Your task to perform on an android device: move a message to another label in the gmail app Image 0: 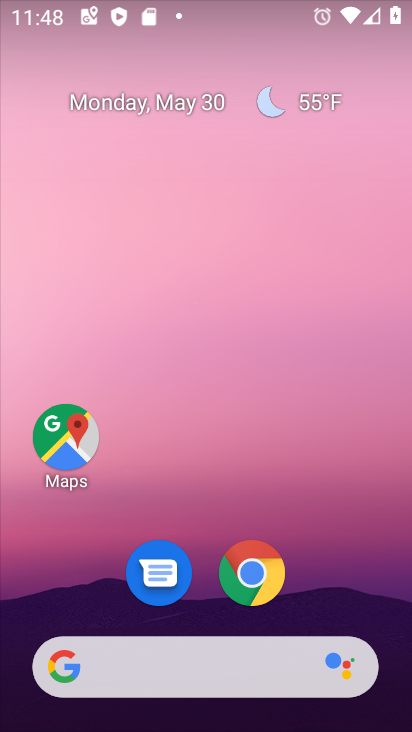
Step 0: drag from (148, 728) to (268, 80)
Your task to perform on an android device: move a message to another label in the gmail app Image 1: 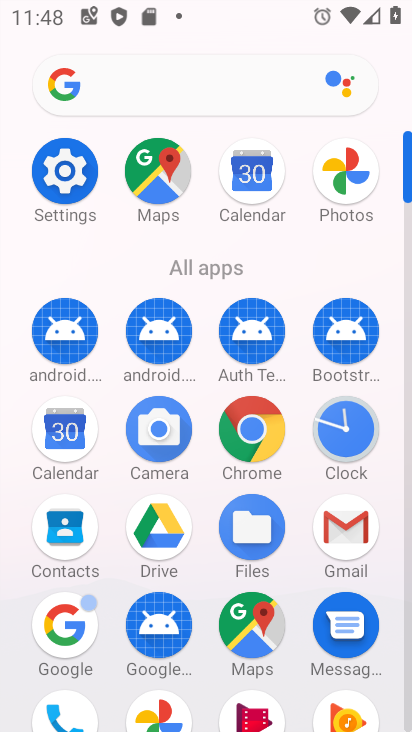
Step 1: click (348, 536)
Your task to perform on an android device: move a message to another label in the gmail app Image 2: 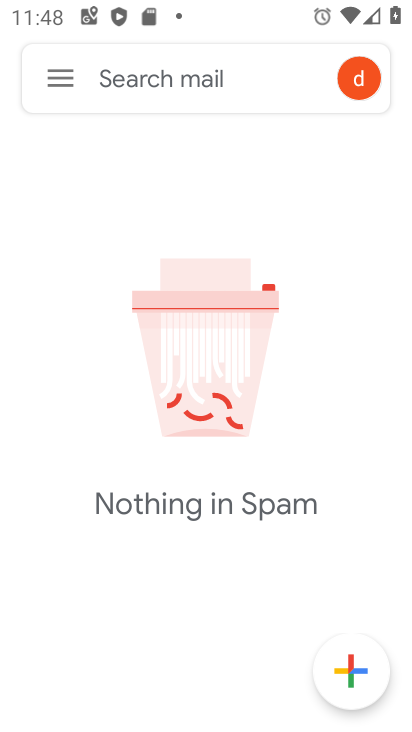
Step 2: click (62, 87)
Your task to perform on an android device: move a message to another label in the gmail app Image 3: 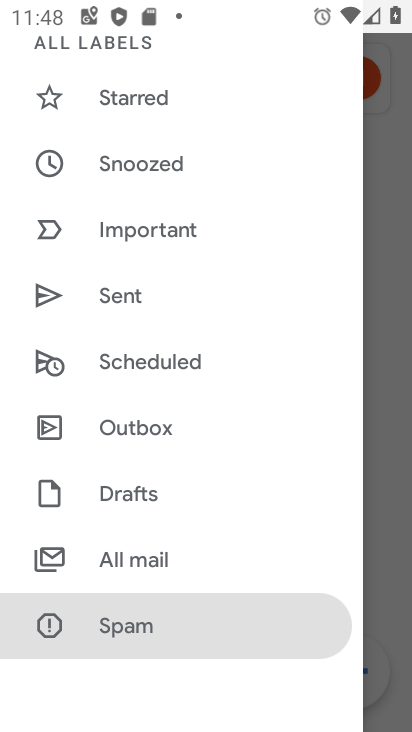
Step 3: click (171, 555)
Your task to perform on an android device: move a message to another label in the gmail app Image 4: 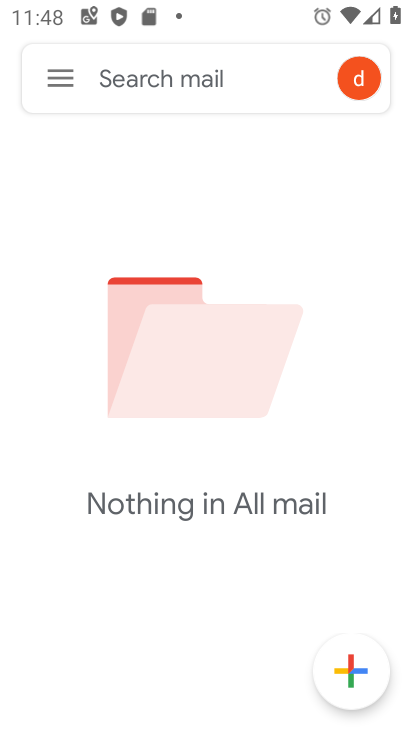
Step 4: click (62, 89)
Your task to perform on an android device: move a message to another label in the gmail app Image 5: 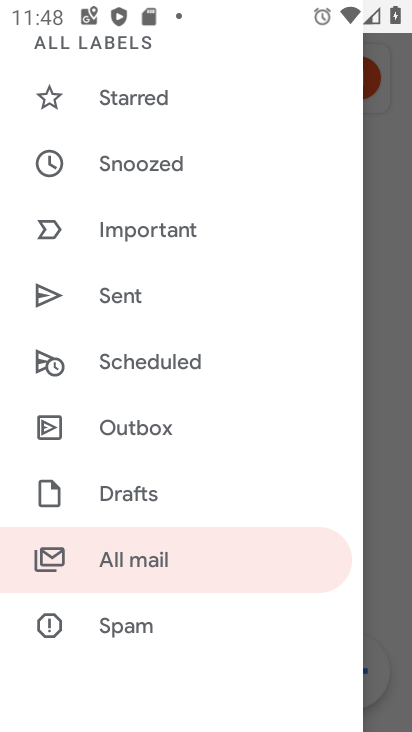
Step 5: drag from (277, 140) to (245, 686)
Your task to perform on an android device: move a message to another label in the gmail app Image 6: 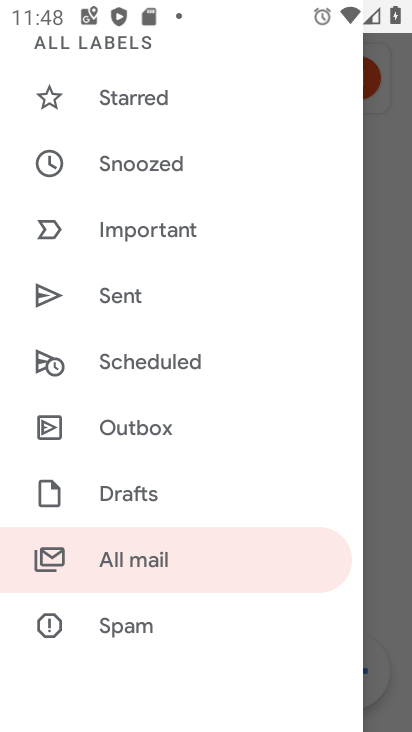
Step 6: drag from (223, 115) to (165, 590)
Your task to perform on an android device: move a message to another label in the gmail app Image 7: 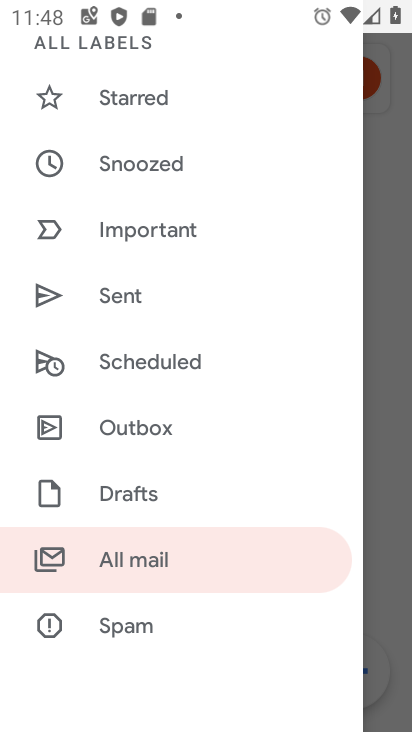
Step 7: drag from (234, 145) to (188, 669)
Your task to perform on an android device: move a message to another label in the gmail app Image 8: 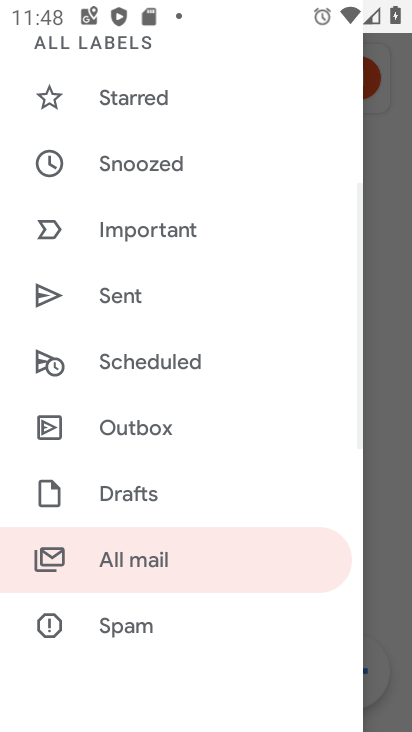
Step 8: drag from (208, 110) to (177, 621)
Your task to perform on an android device: move a message to another label in the gmail app Image 9: 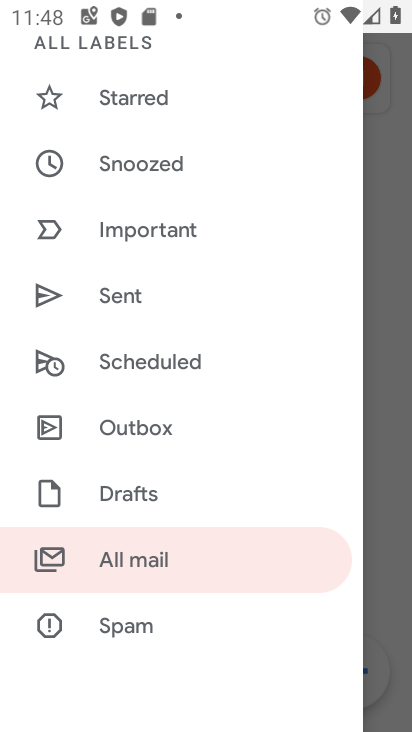
Step 9: drag from (228, 108) to (226, 599)
Your task to perform on an android device: move a message to another label in the gmail app Image 10: 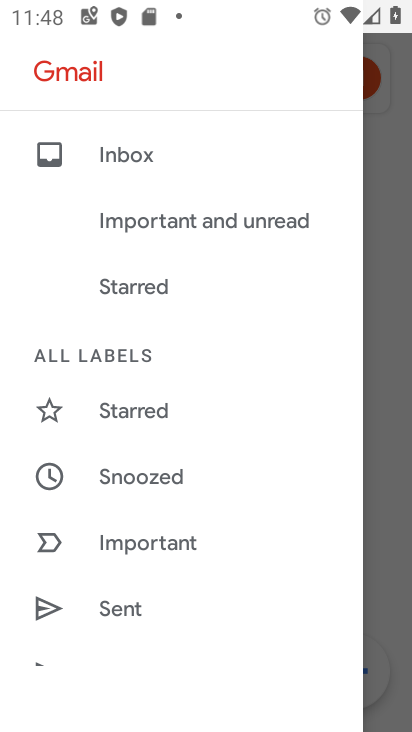
Step 10: click (167, 160)
Your task to perform on an android device: move a message to another label in the gmail app Image 11: 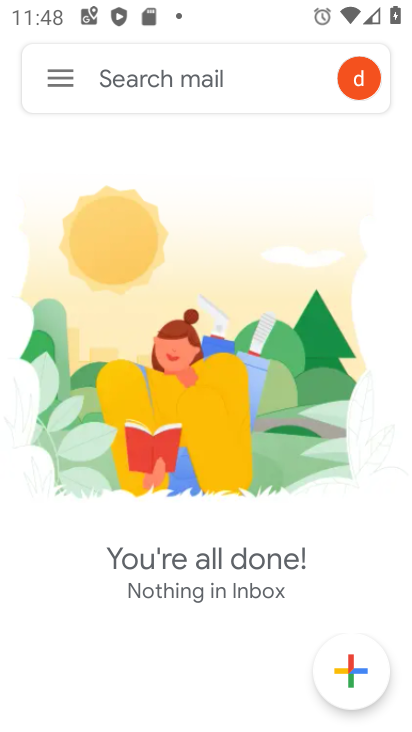
Step 11: task complete